Your task to perform on an android device: Search for pizza restaurants on Maps Image 0: 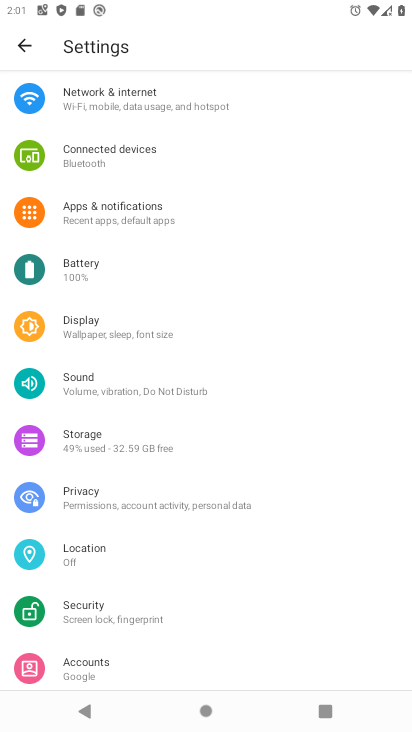
Step 0: press home button
Your task to perform on an android device: Search for pizza restaurants on Maps Image 1: 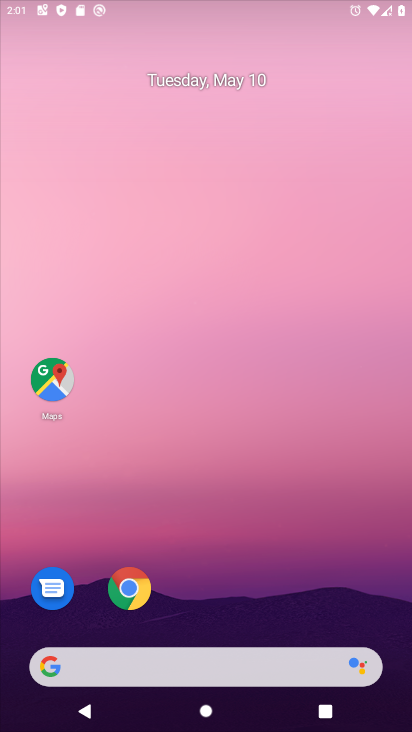
Step 1: drag from (203, 593) to (239, 211)
Your task to perform on an android device: Search for pizza restaurants on Maps Image 2: 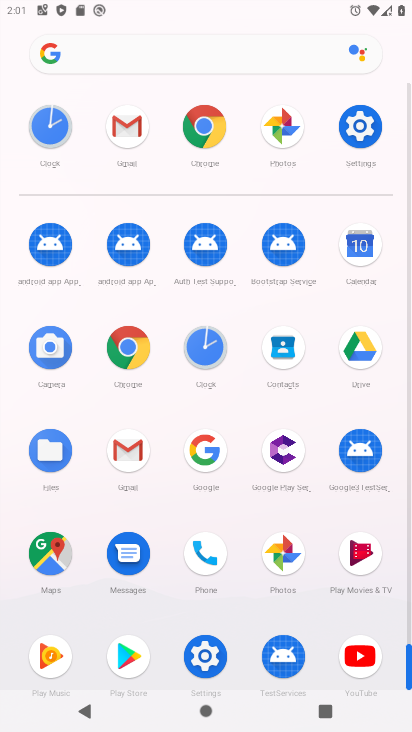
Step 2: click (46, 544)
Your task to perform on an android device: Search for pizza restaurants on Maps Image 3: 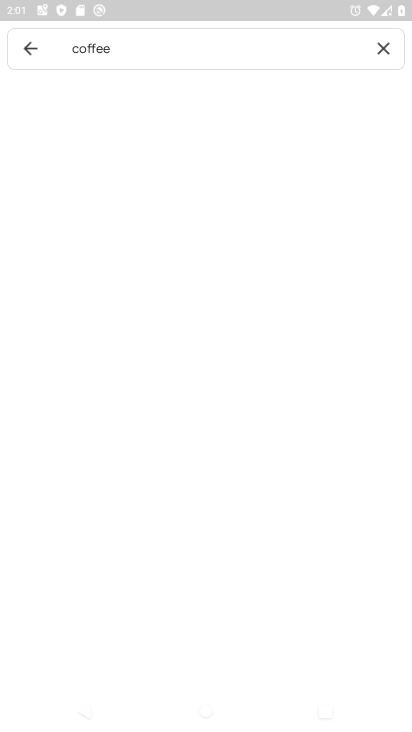
Step 3: click (392, 46)
Your task to perform on an android device: Search for pizza restaurants on Maps Image 4: 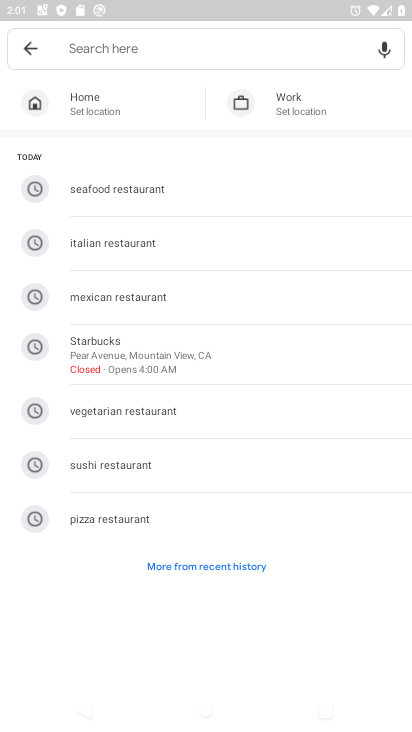
Step 4: click (122, 513)
Your task to perform on an android device: Search for pizza restaurants on Maps Image 5: 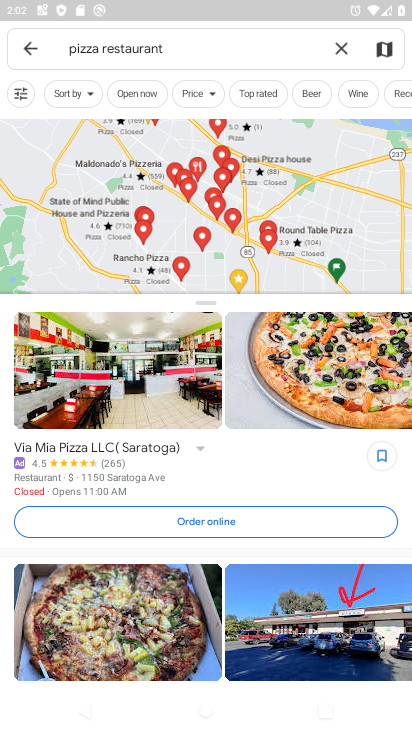
Step 5: task complete